Your task to perform on an android device: Open calendar and show me the fourth week of next month Image 0: 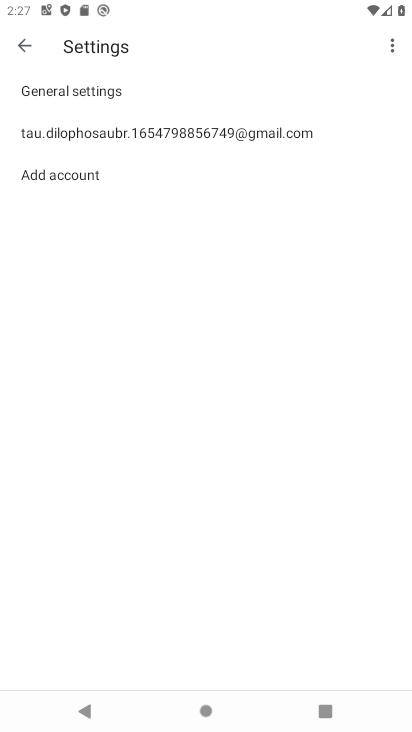
Step 0: press home button
Your task to perform on an android device: Open calendar and show me the fourth week of next month Image 1: 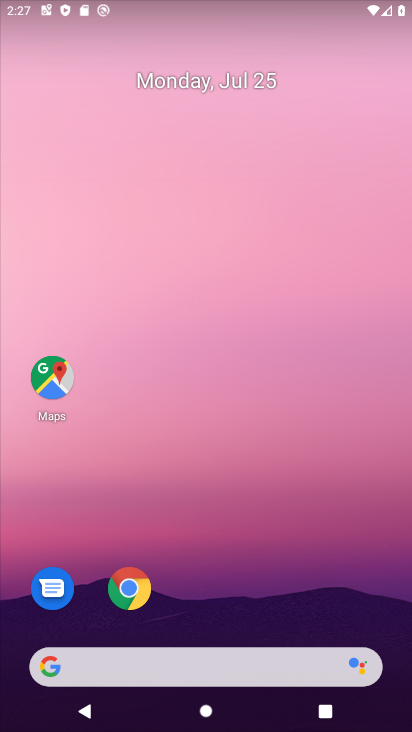
Step 1: drag from (196, 611) to (221, 8)
Your task to perform on an android device: Open calendar and show me the fourth week of next month Image 2: 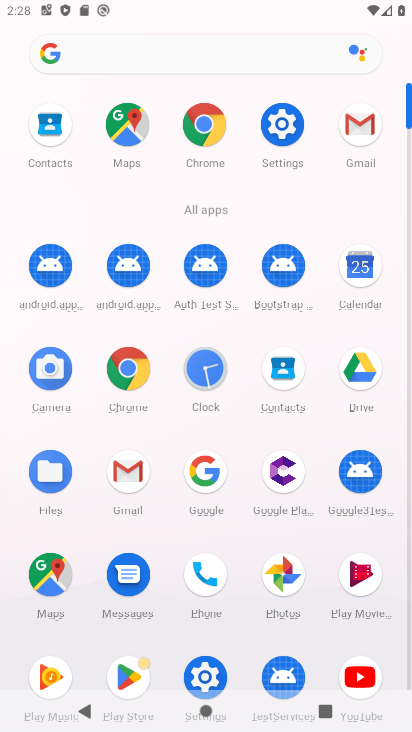
Step 2: click (361, 279)
Your task to perform on an android device: Open calendar and show me the fourth week of next month Image 3: 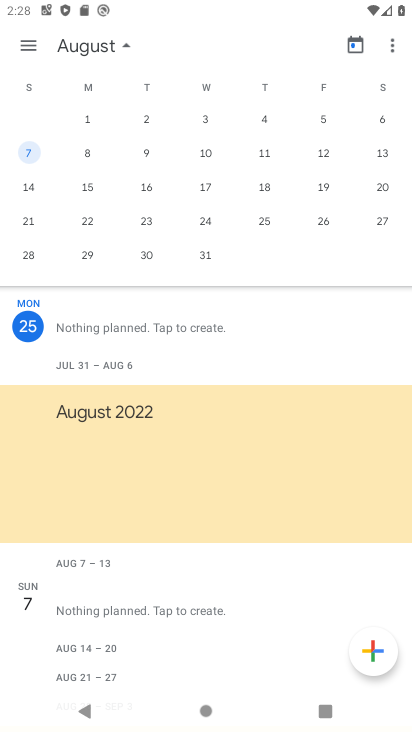
Step 3: click (28, 221)
Your task to perform on an android device: Open calendar and show me the fourth week of next month Image 4: 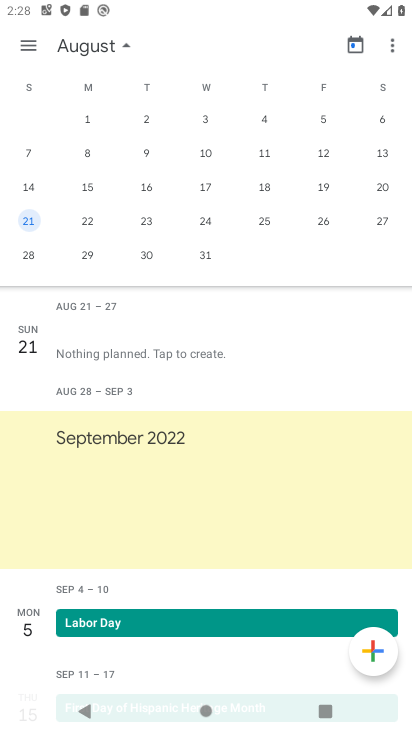
Step 4: task complete